Your task to perform on an android device: uninstall "Paramount+ | Peak Streaming" Image 0: 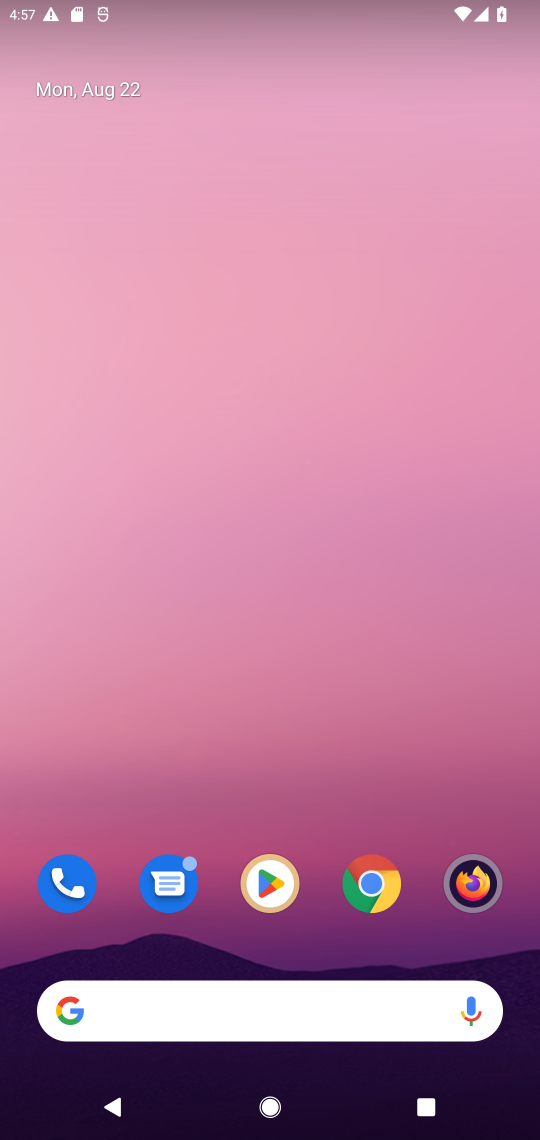
Step 0: drag from (320, 940) to (314, 304)
Your task to perform on an android device: uninstall "Paramount+ | Peak Streaming" Image 1: 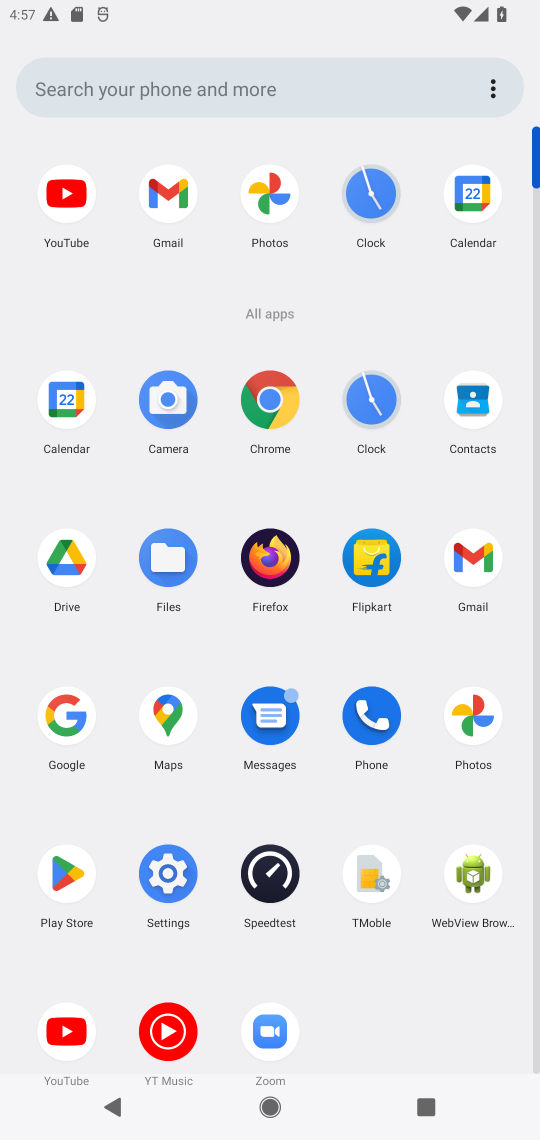
Step 1: click (55, 860)
Your task to perform on an android device: uninstall "Paramount+ | Peak Streaming" Image 2: 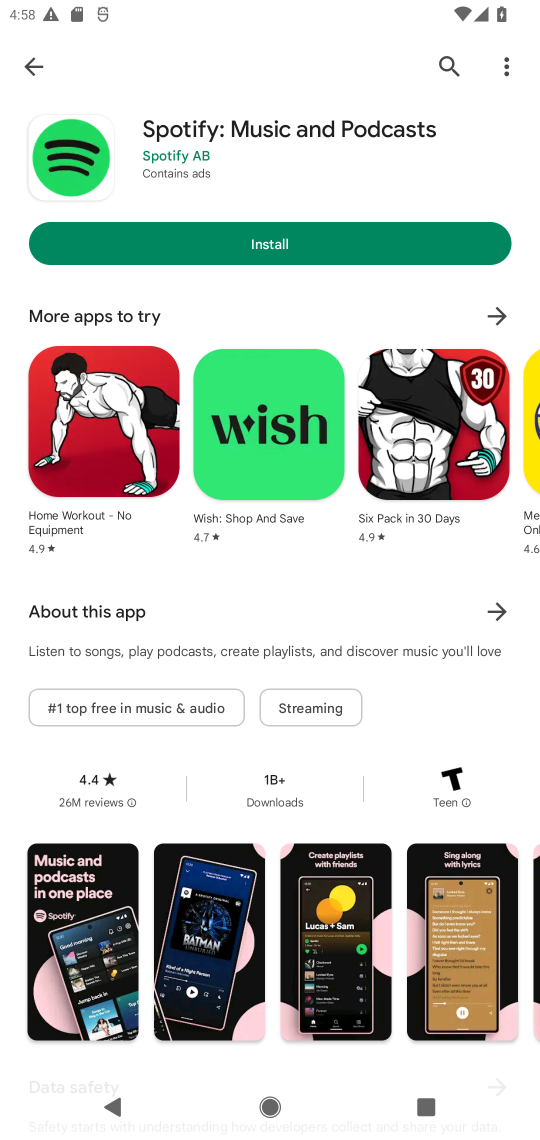
Step 2: click (442, 64)
Your task to perform on an android device: uninstall "Paramount+ | Peak Streaming" Image 3: 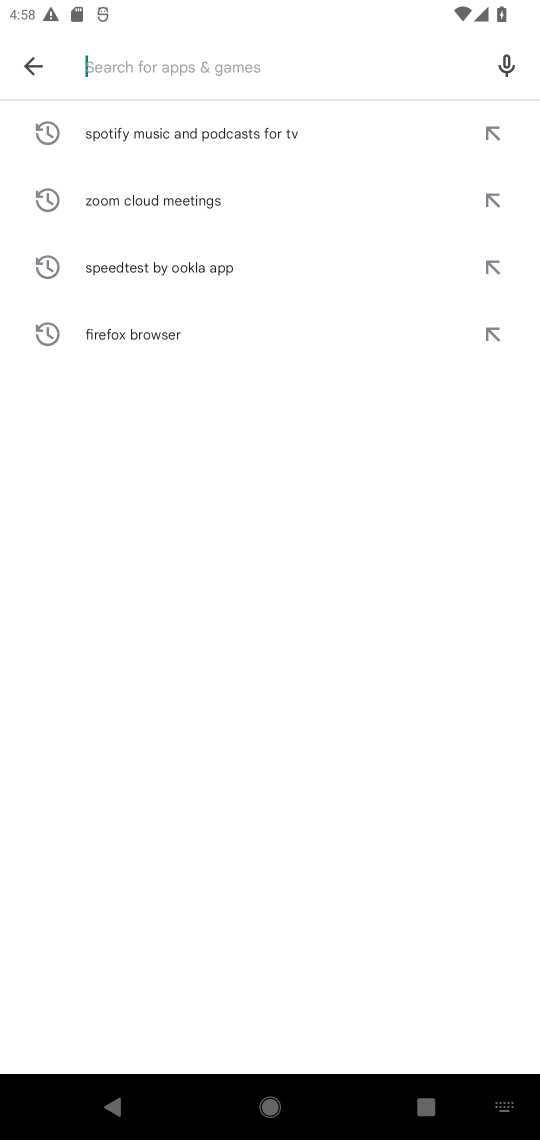
Step 3: type "Paramount+ | Peak Streaming"
Your task to perform on an android device: uninstall "Paramount+ | Peak Streaming" Image 4: 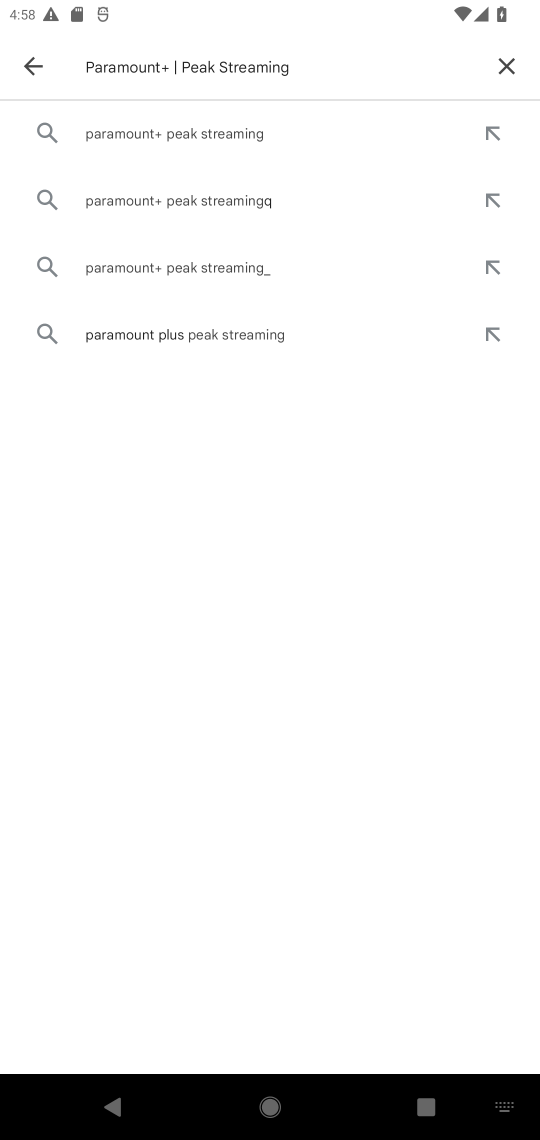
Step 4: click (151, 130)
Your task to perform on an android device: uninstall "Paramount+ | Peak Streaming" Image 5: 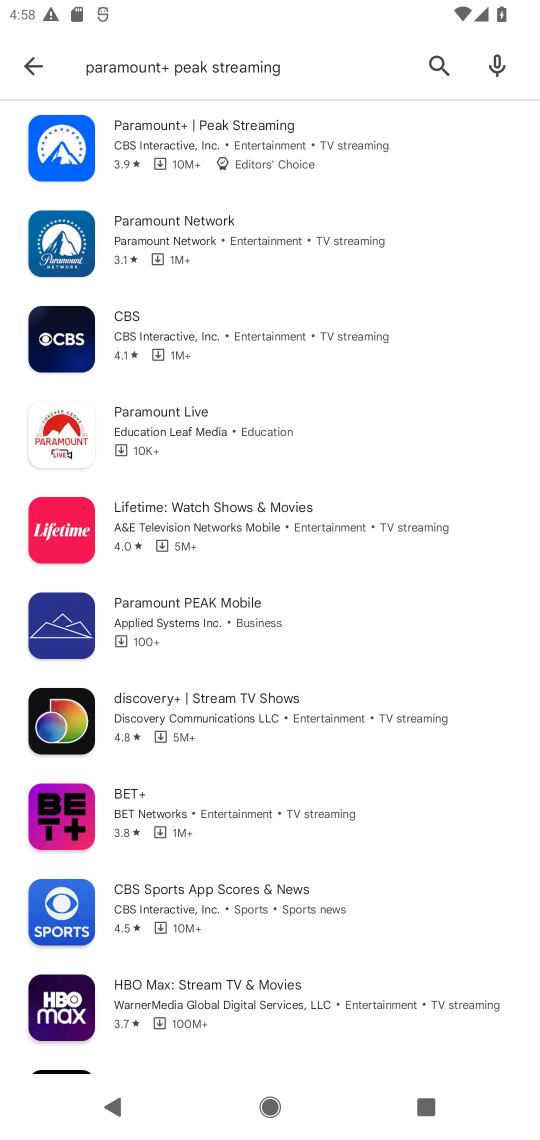
Step 5: task complete